Your task to perform on an android device: Open accessibility settings Image 0: 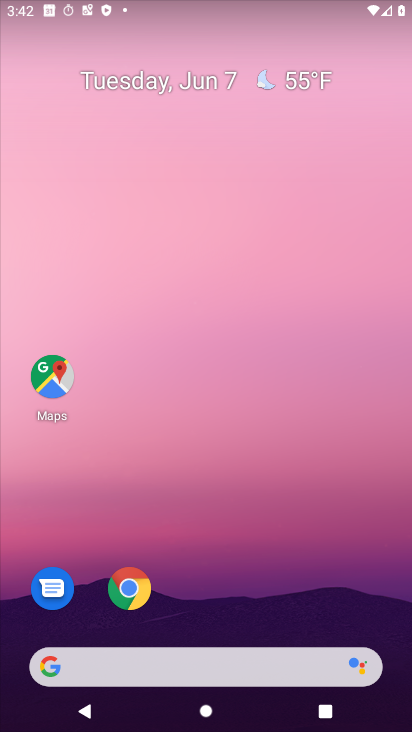
Step 0: press home button
Your task to perform on an android device: Open accessibility settings Image 1: 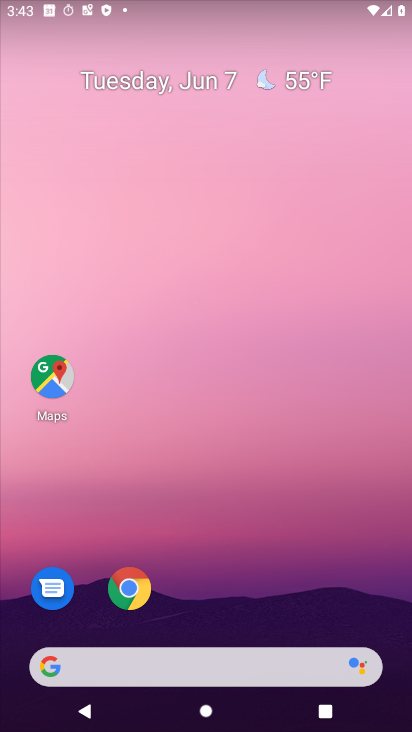
Step 1: drag from (242, 625) to (262, 125)
Your task to perform on an android device: Open accessibility settings Image 2: 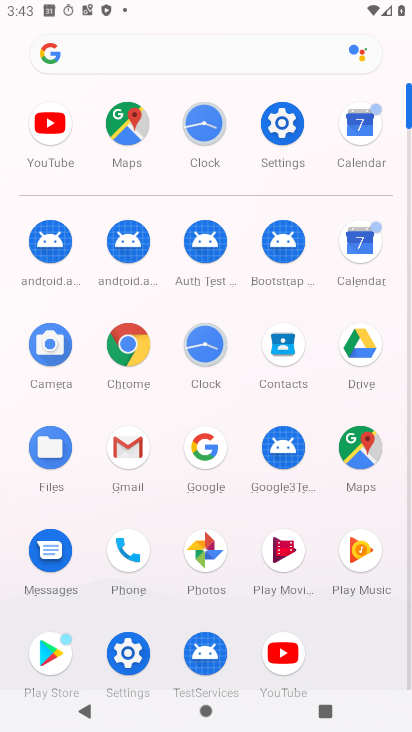
Step 2: click (282, 124)
Your task to perform on an android device: Open accessibility settings Image 3: 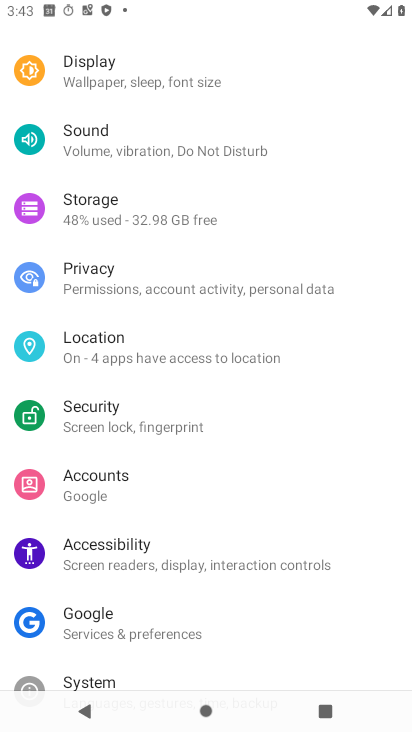
Step 3: click (143, 558)
Your task to perform on an android device: Open accessibility settings Image 4: 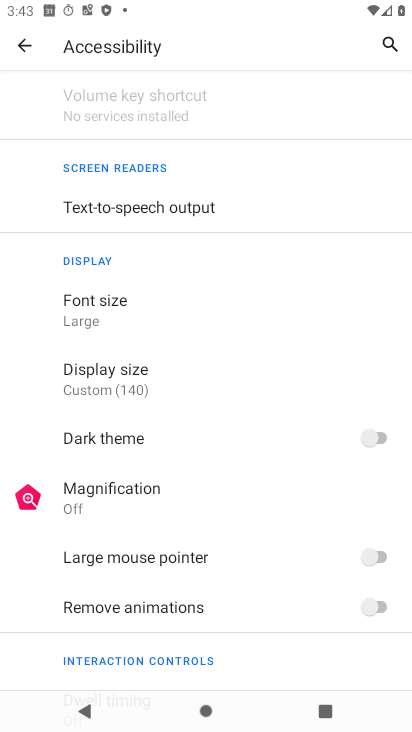
Step 4: task complete